Your task to perform on an android device: Go to Yahoo.com Image 0: 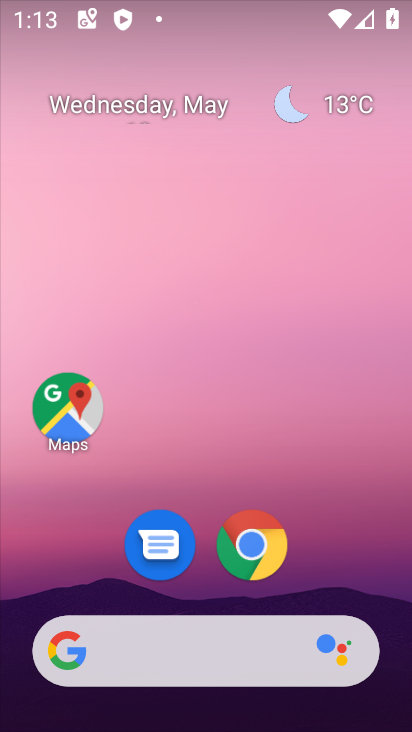
Step 0: click (278, 547)
Your task to perform on an android device: Go to Yahoo.com Image 1: 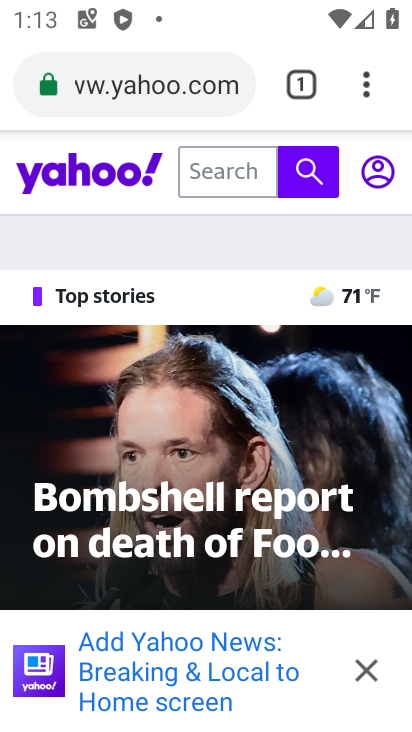
Step 1: task complete